Your task to perform on an android device: Go to Google Image 0: 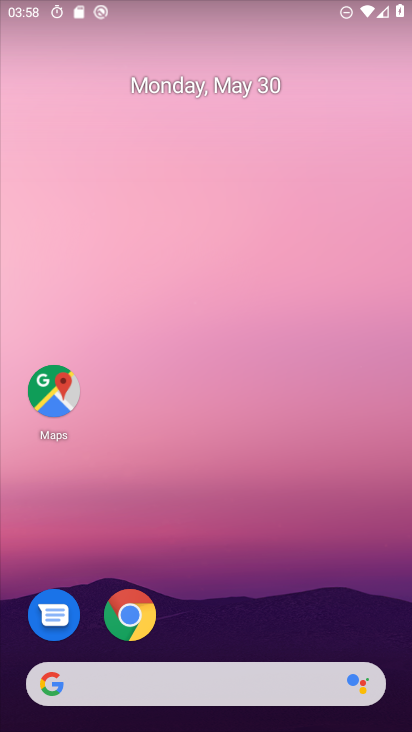
Step 0: drag from (242, 604) to (252, 121)
Your task to perform on an android device: Go to Google Image 1: 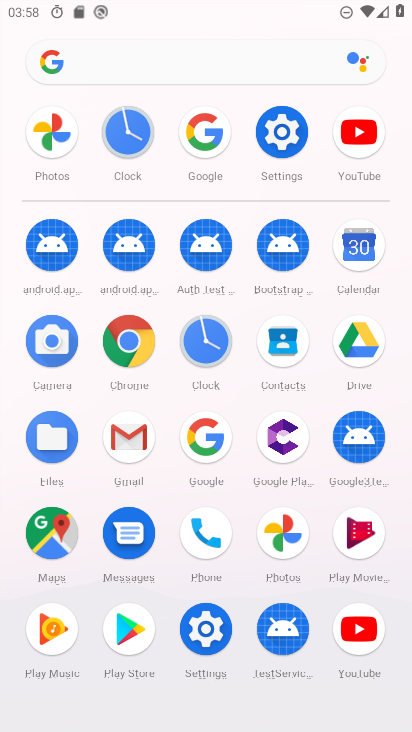
Step 1: click (202, 129)
Your task to perform on an android device: Go to Google Image 2: 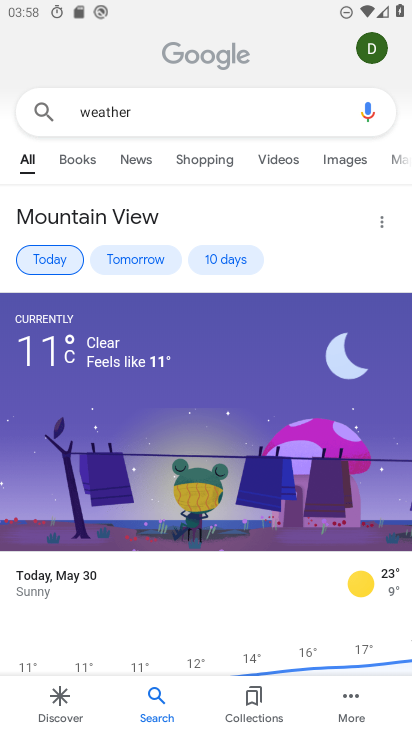
Step 2: task complete